Your task to perform on an android device: set the stopwatch Image 0: 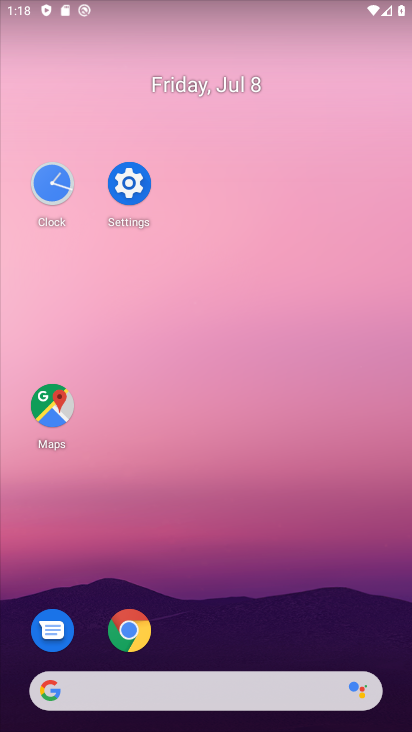
Step 0: click (57, 191)
Your task to perform on an android device: set the stopwatch Image 1: 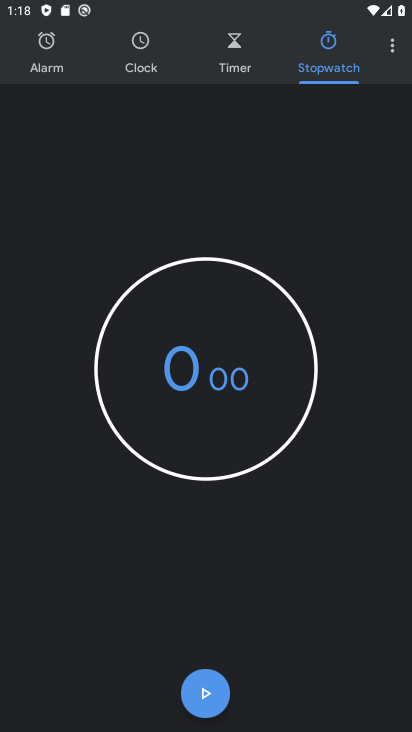
Step 1: click (209, 690)
Your task to perform on an android device: set the stopwatch Image 2: 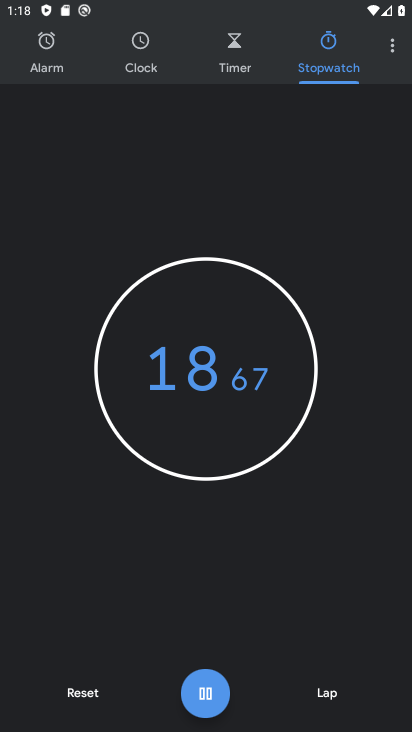
Step 2: task complete